Your task to perform on an android device: Open Chrome and go to the settings page Image 0: 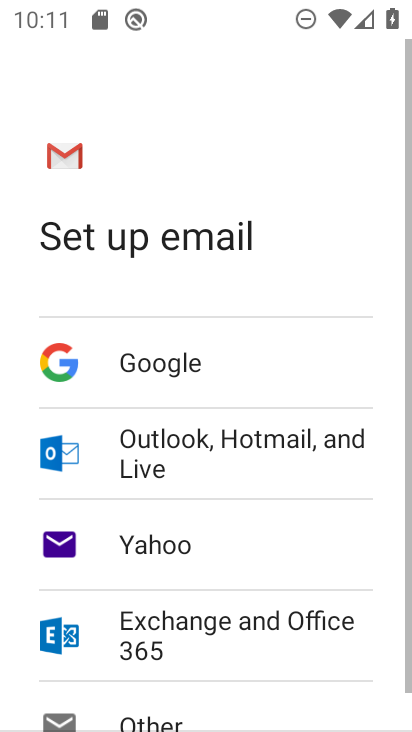
Step 0: press home button
Your task to perform on an android device: Open Chrome and go to the settings page Image 1: 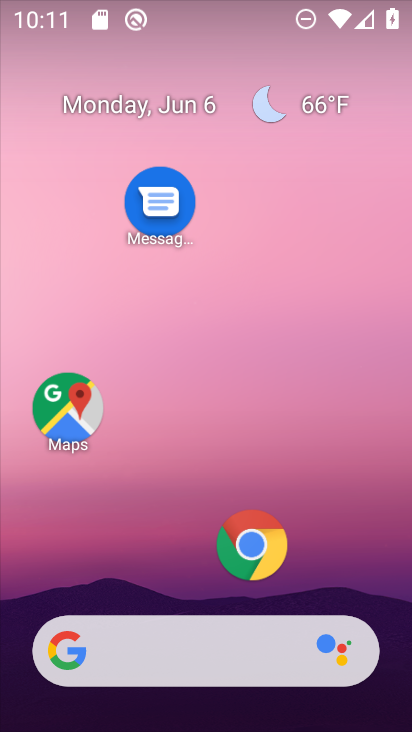
Step 1: drag from (228, 582) to (298, 167)
Your task to perform on an android device: Open Chrome and go to the settings page Image 2: 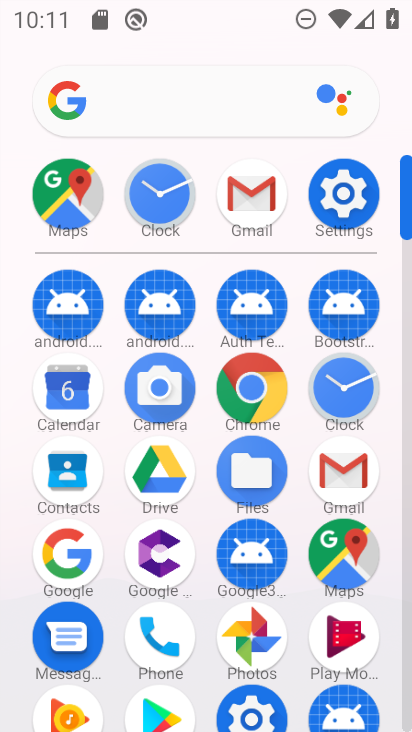
Step 2: click (247, 382)
Your task to perform on an android device: Open Chrome and go to the settings page Image 3: 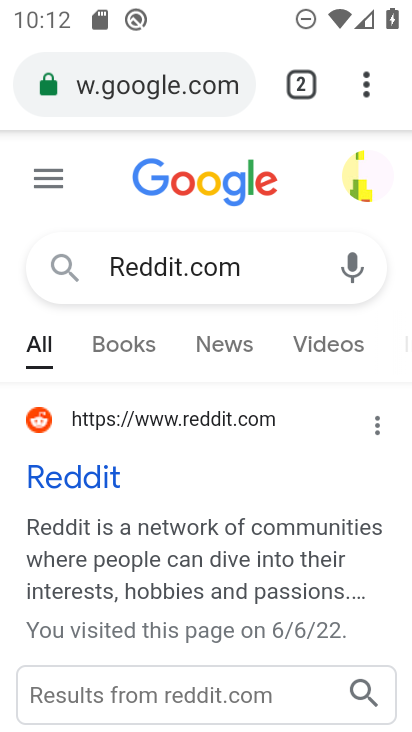
Step 3: click (360, 89)
Your task to perform on an android device: Open Chrome and go to the settings page Image 4: 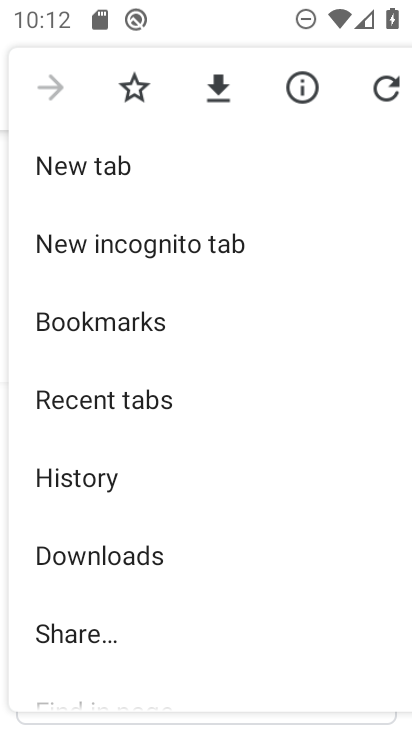
Step 4: drag from (63, 611) to (228, 66)
Your task to perform on an android device: Open Chrome and go to the settings page Image 5: 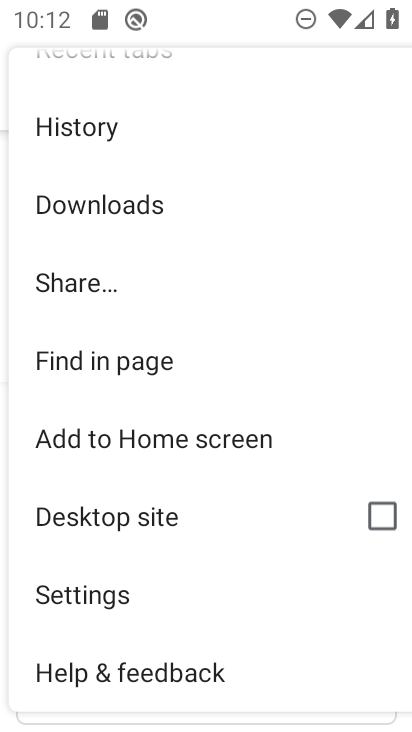
Step 5: click (85, 597)
Your task to perform on an android device: Open Chrome and go to the settings page Image 6: 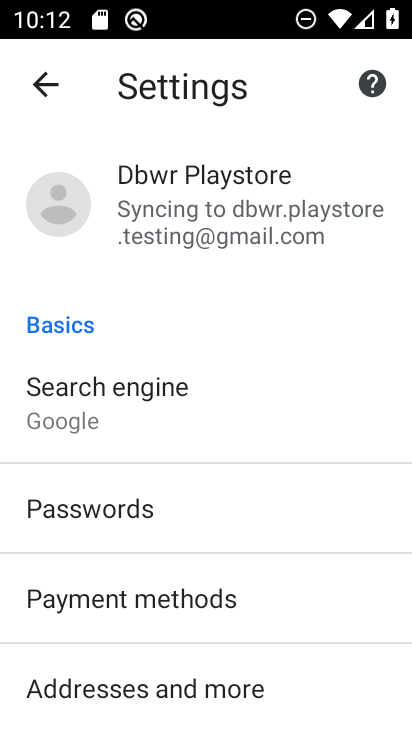
Step 6: task complete